Your task to perform on an android device: turn on translation in the chrome app Image 0: 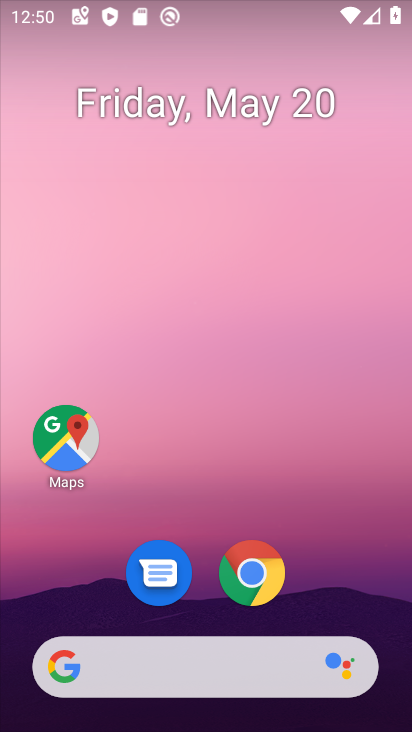
Step 0: click (258, 569)
Your task to perform on an android device: turn on translation in the chrome app Image 1: 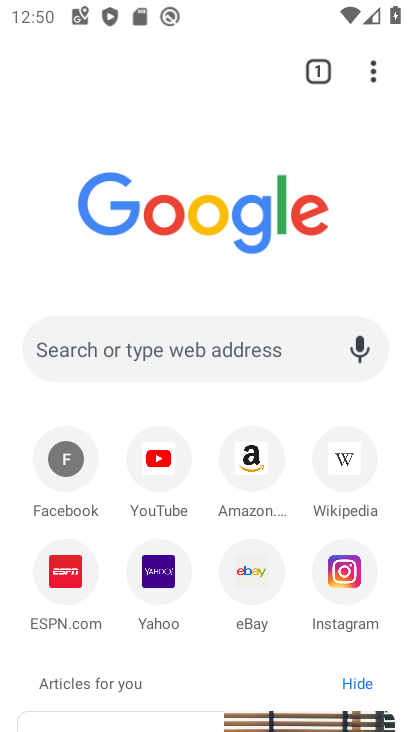
Step 1: click (375, 80)
Your task to perform on an android device: turn on translation in the chrome app Image 2: 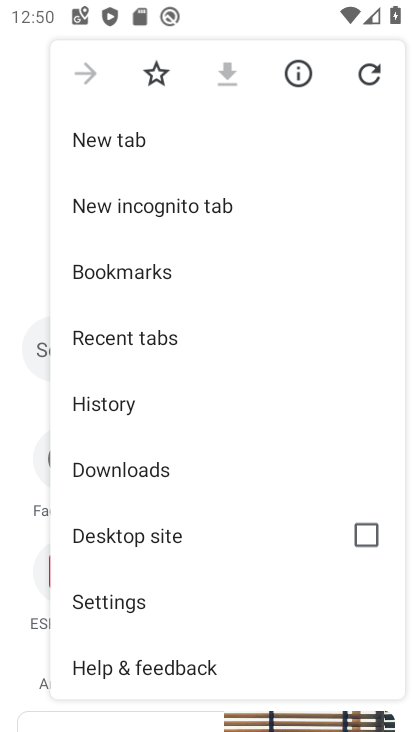
Step 2: click (122, 593)
Your task to perform on an android device: turn on translation in the chrome app Image 3: 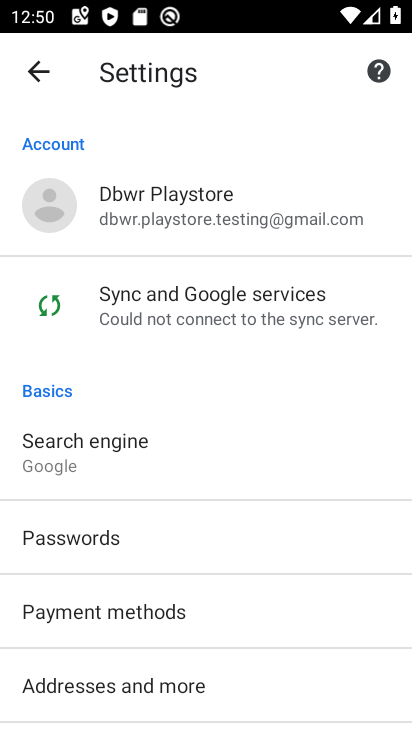
Step 3: drag from (147, 694) to (157, 278)
Your task to perform on an android device: turn on translation in the chrome app Image 4: 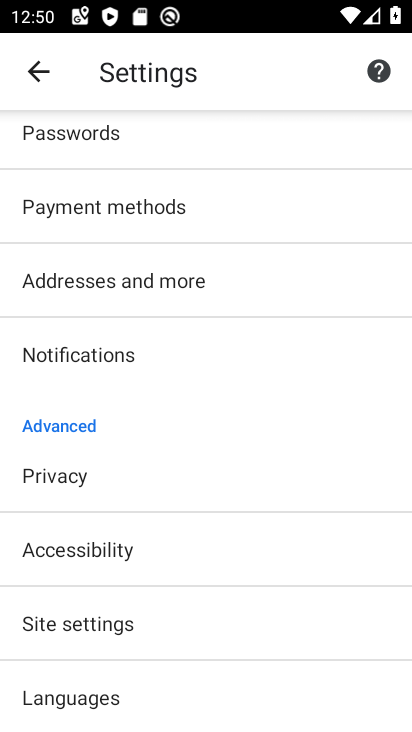
Step 4: click (79, 699)
Your task to perform on an android device: turn on translation in the chrome app Image 5: 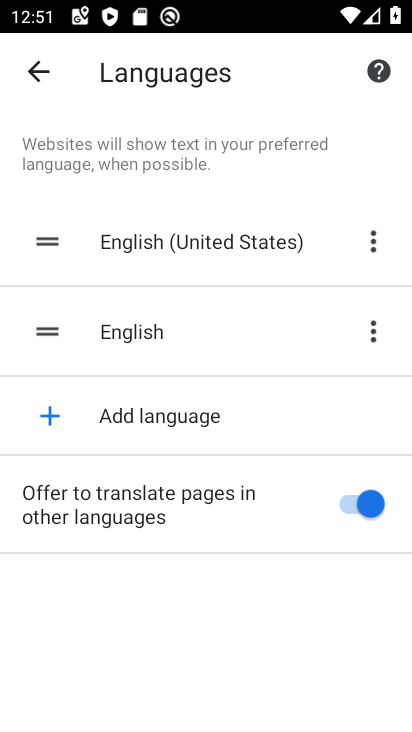
Step 5: task complete